Your task to perform on an android device: Clear the shopping cart on costco.com. Search for alienware aurora on costco.com, select the first entry, and add it to the cart. Image 0: 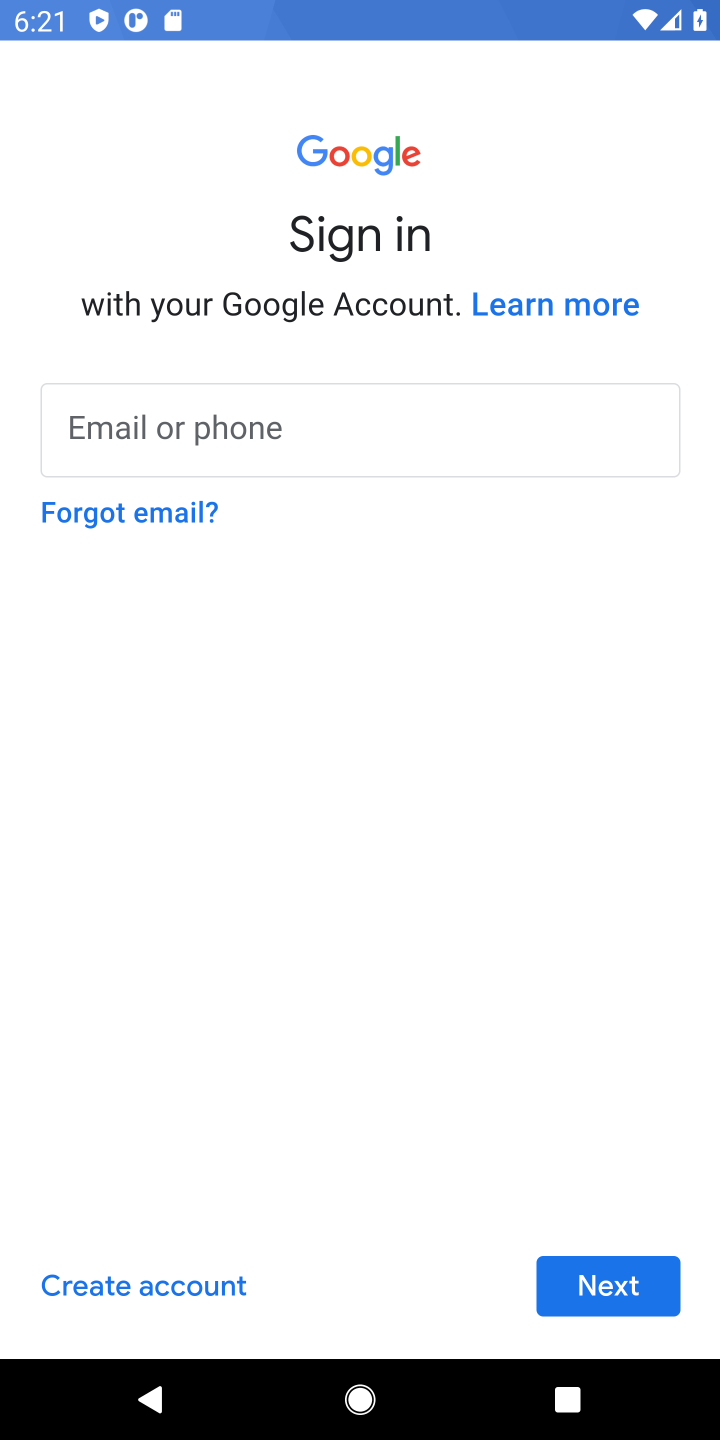
Step 0: press home button
Your task to perform on an android device: Clear the shopping cart on costco.com. Search for alienware aurora on costco.com, select the first entry, and add it to the cart. Image 1: 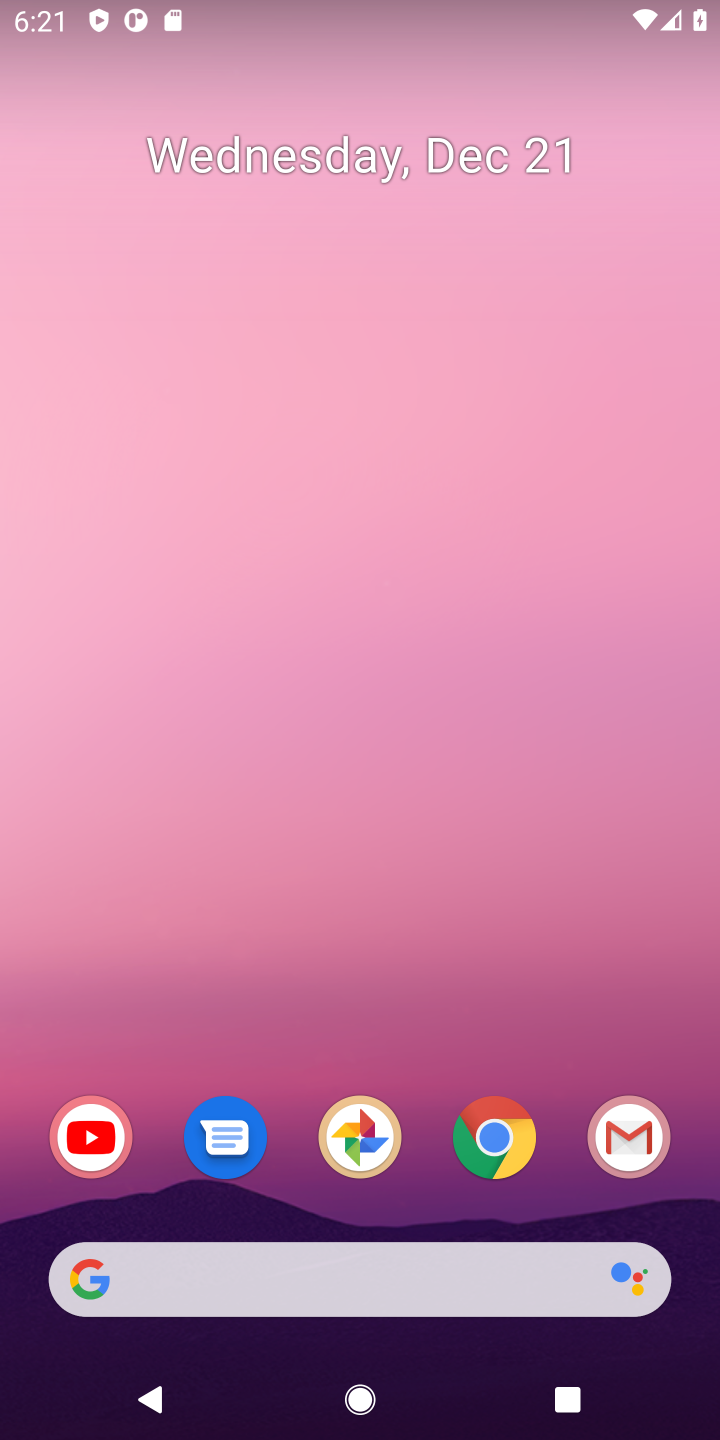
Step 1: click (491, 1141)
Your task to perform on an android device: Clear the shopping cart on costco.com. Search for alienware aurora on costco.com, select the first entry, and add it to the cart. Image 2: 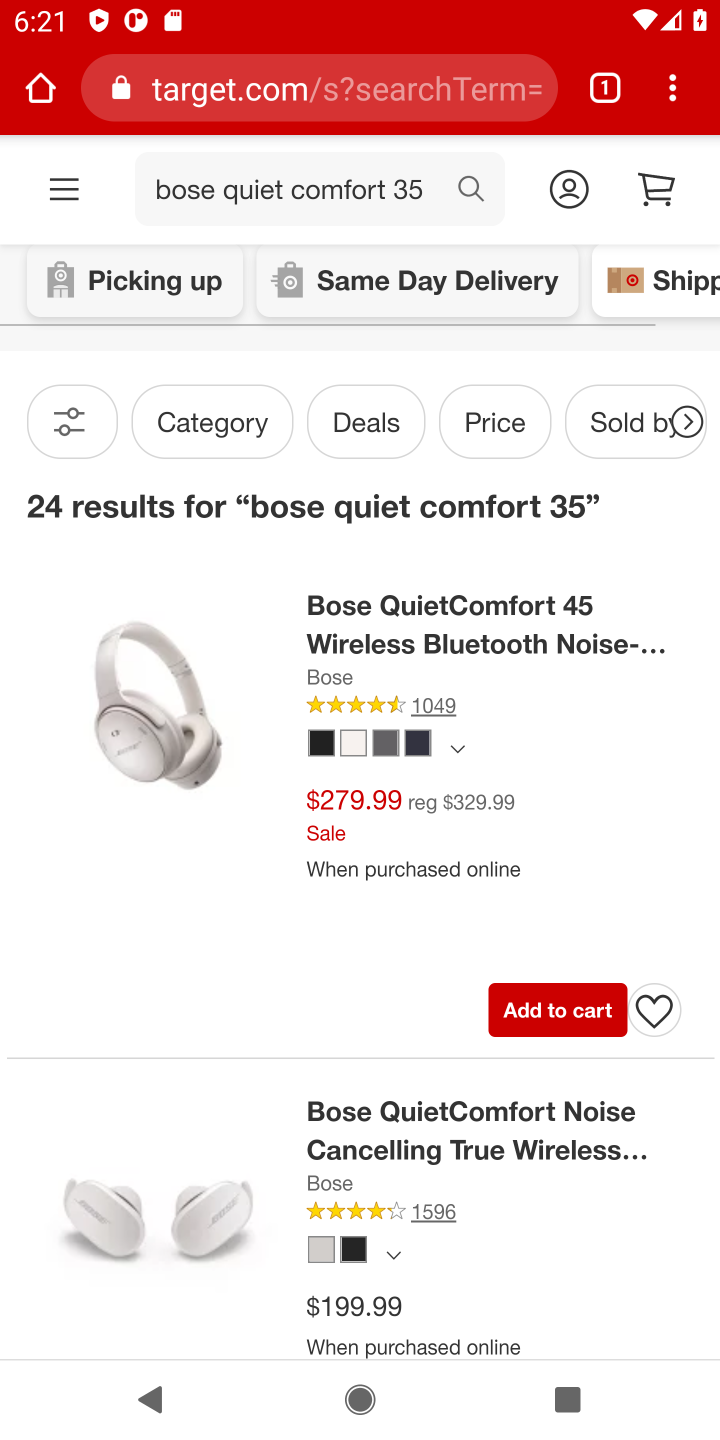
Step 2: click (263, 90)
Your task to perform on an android device: Clear the shopping cart on costco.com. Search for alienware aurora on costco.com, select the first entry, and add it to the cart. Image 3: 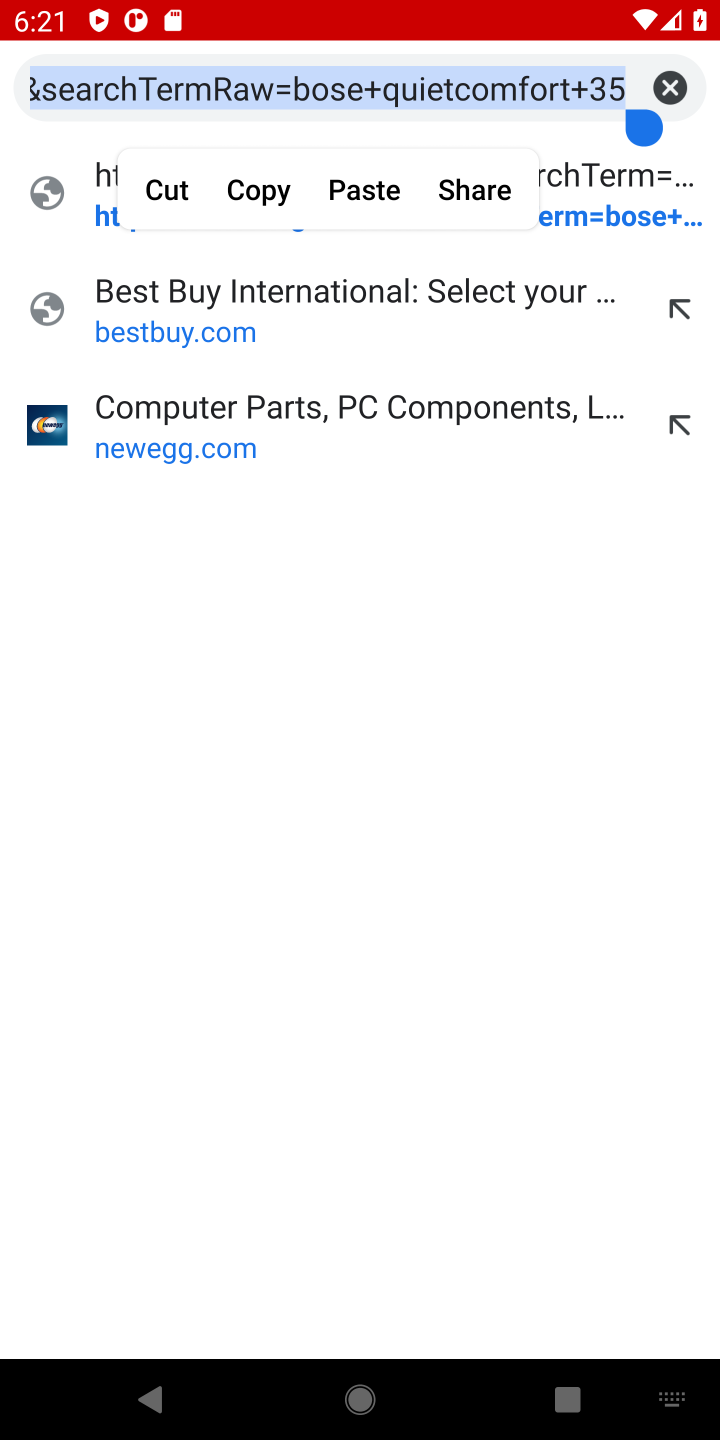
Step 3: type "costco.com"
Your task to perform on an android device: Clear the shopping cart on costco.com. Search for alienware aurora on costco.com, select the first entry, and add it to the cart. Image 4: 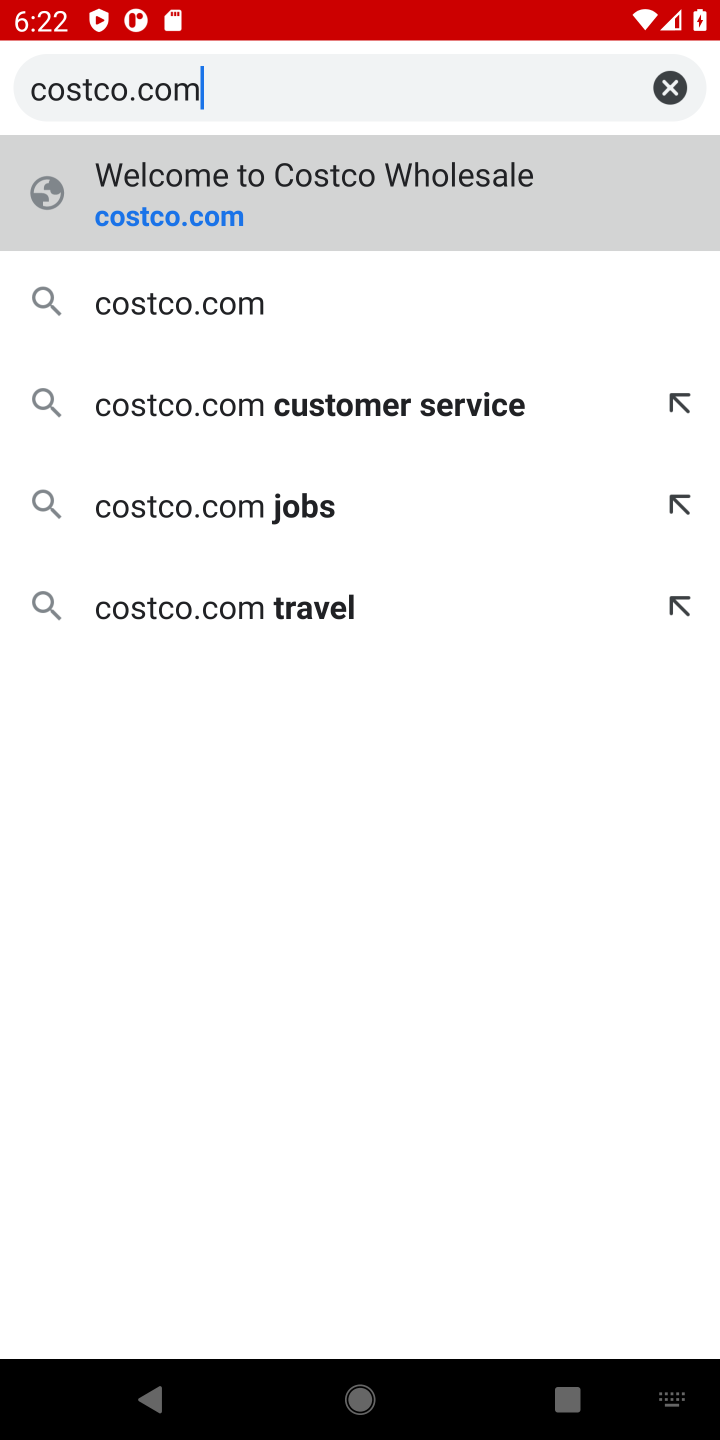
Step 4: click (225, 174)
Your task to perform on an android device: Clear the shopping cart on costco.com. Search for alienware aurora on costco.com, select the first entry, and add it to the cart. Image 5: 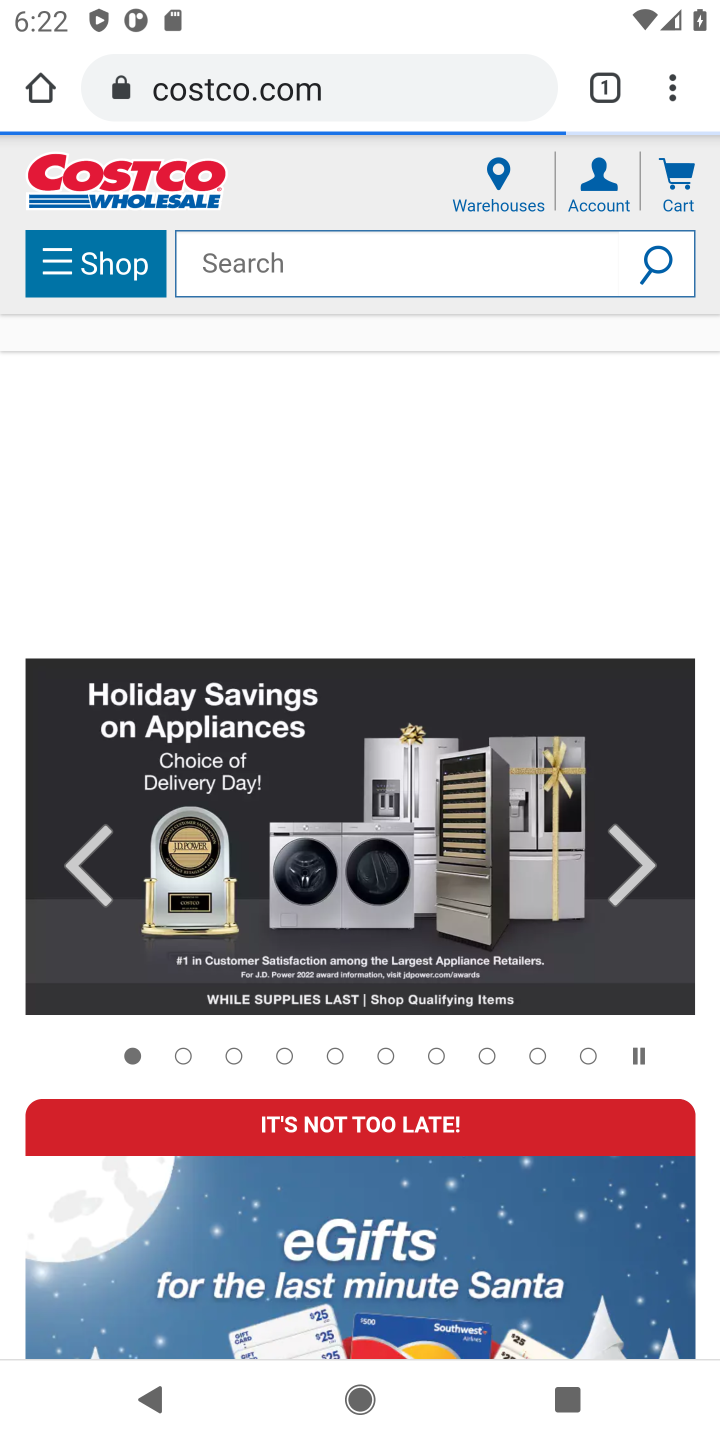
Step 5: click (680, 192)
Your task to perform on an android device: Clear the shopping cart on costco.com. Search for alienware aurora on costco.com, select the first entry, and add it to the cart. Image 6: 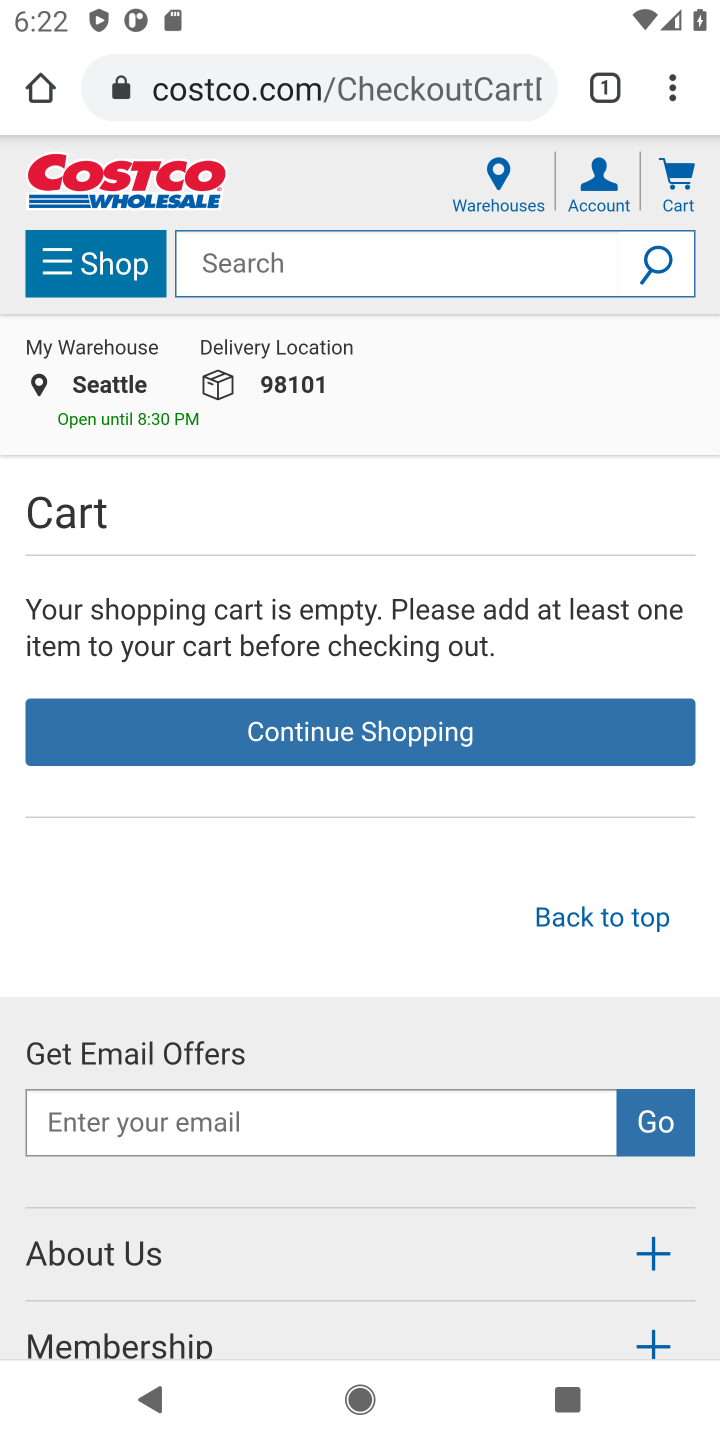
Step 6: click (251, 260)
Your task to perform on an android device: Clear the shopping cart on costco.com. Search for alienware aurora on costco.com, select the first entry, and add it to the cart. Image 7: 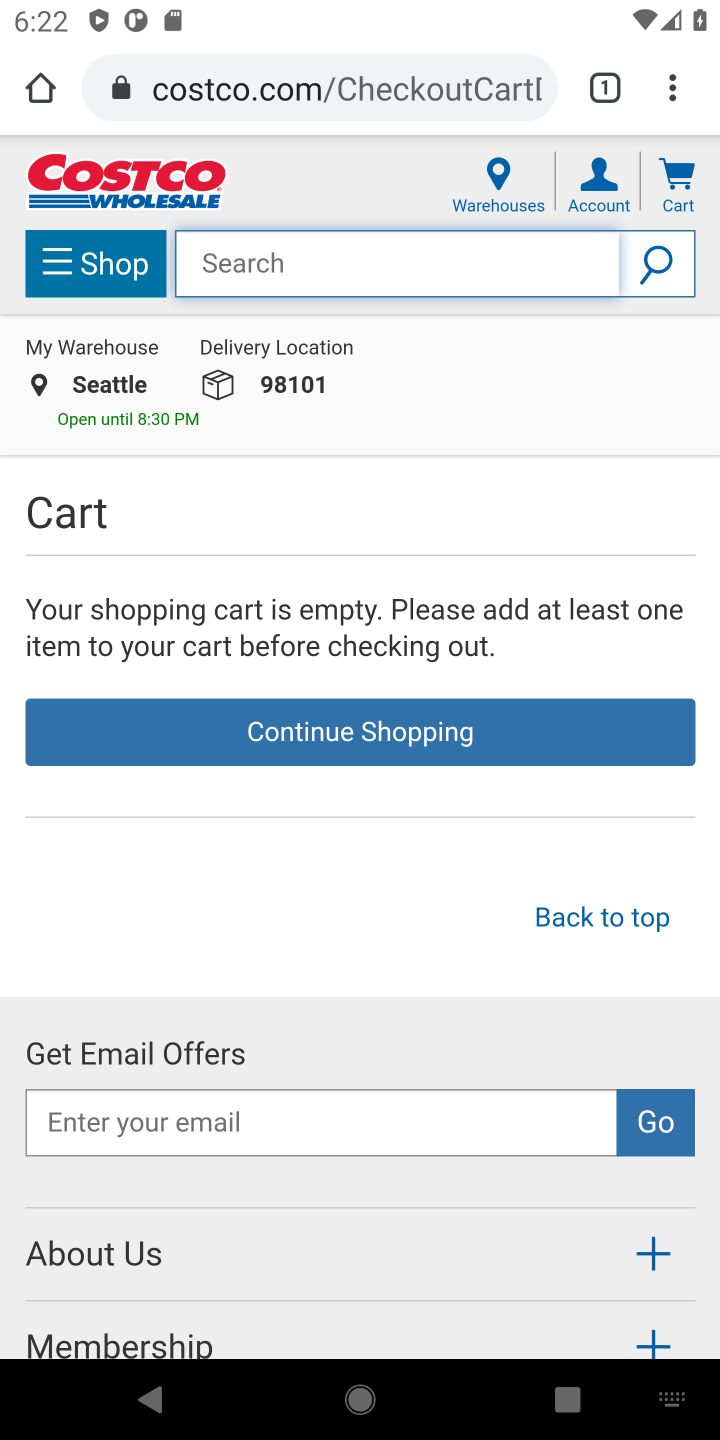
Step 7: type "alienware aurora "
Your task to perform on an android device: Clear the shopping cart on costco.com. Search for alienware aurora on costco.com, select the first entry, and add it to the cart. Image 8: 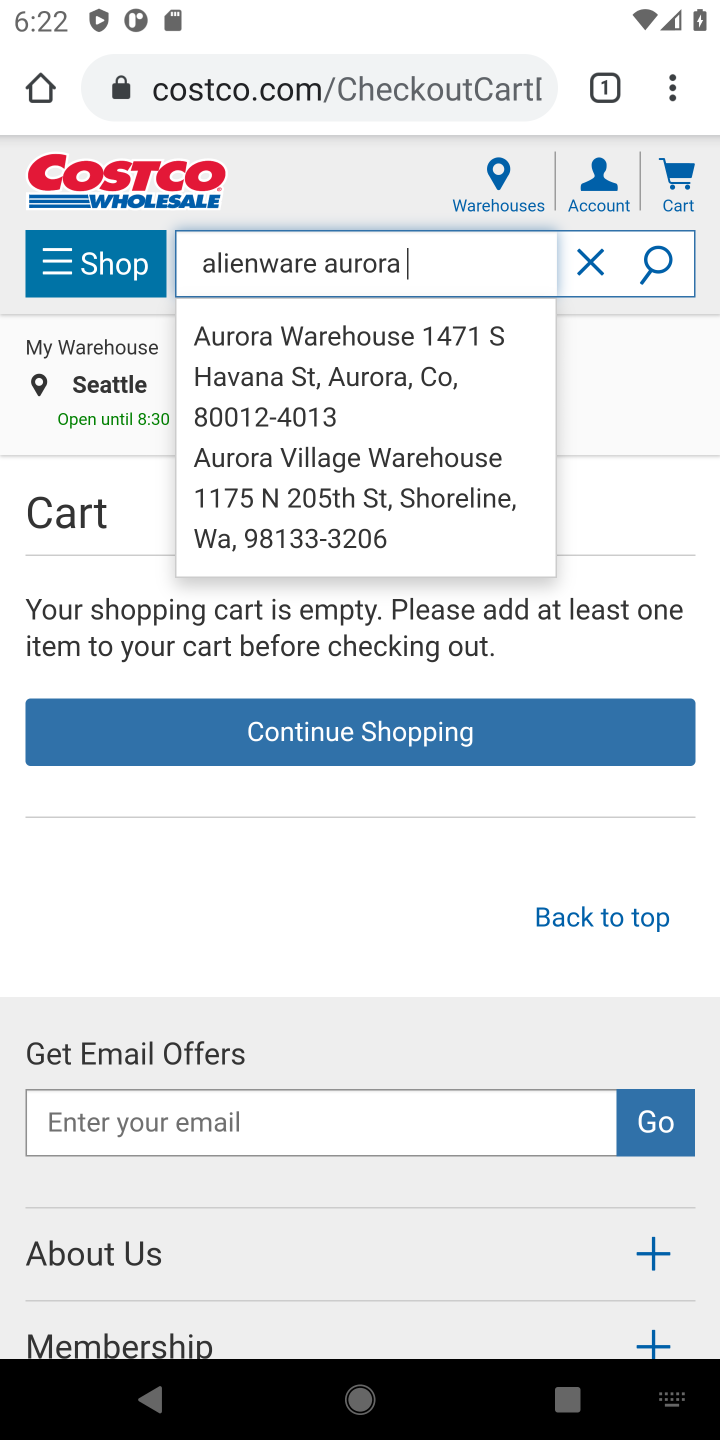
Step 8: click (651, 271)
Your task to perform on an android device: Clear the shopping cart on costco.com. Search for alienware aurora on costco.com, select the first entry, and add it to the cart. Image 9: 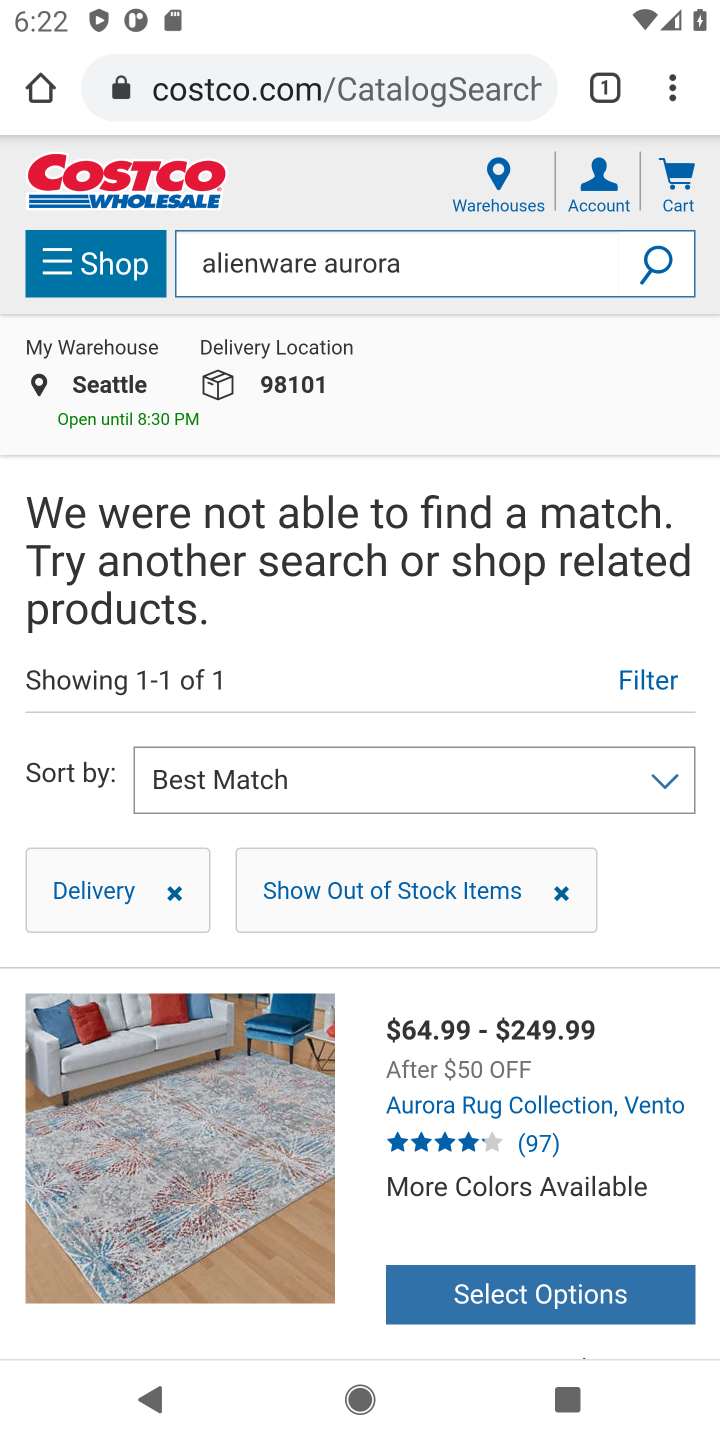
Step 9: task complete